Your task to perform on an android device: see creations saved in the google photos Image 0: 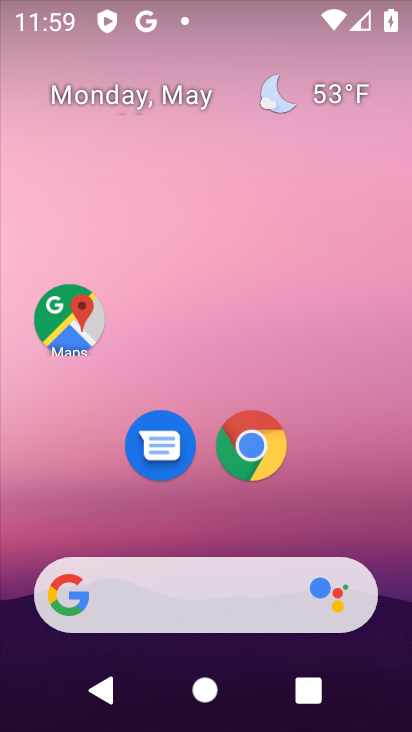
Step 0: drag from (109, 464) to (179, 97)
Your task to perform on an android device: see creations saved in the google photos Image 1: 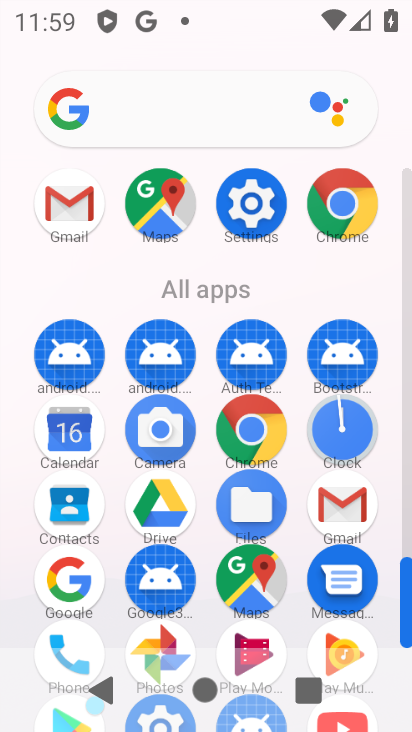
Step 1: drag from (143, 634) to (193, 394)
Your task to perform on an android device: see creations saved in the google photos Image 2: 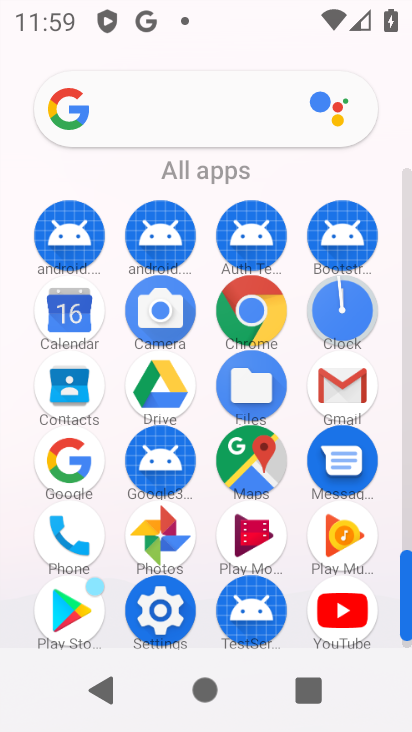
Step 2: click (176, 536)
Your task to perform on an android device: see creations saved in the google photos Image 3: 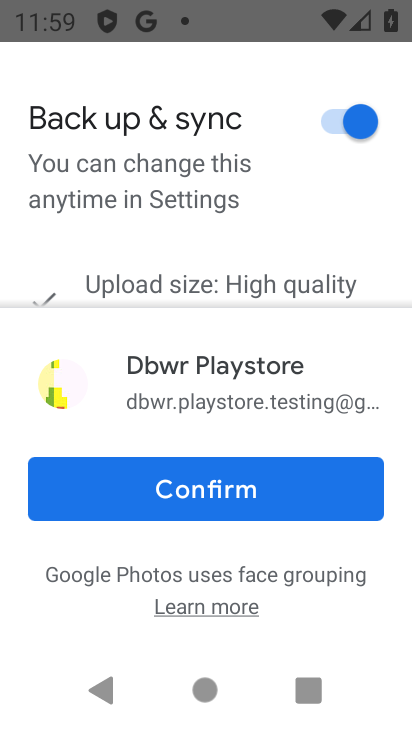
Step 3: click (186, 474)
Your task to perform on an android device: see creations saved in the google photos Image 4: 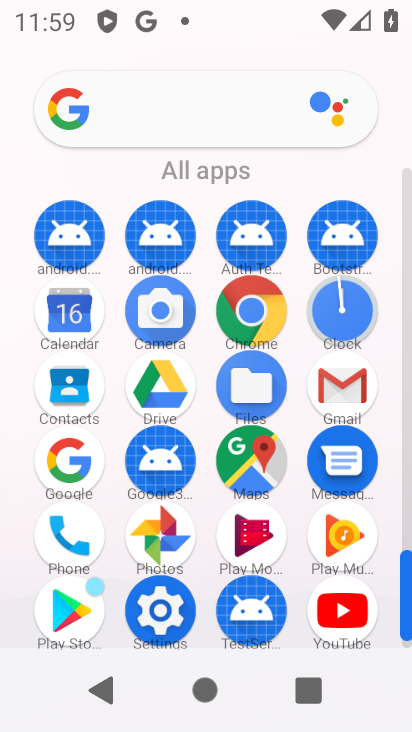
Step 4: click (158, 554)
Your task to perform on an android device: see creations saved in the google photos Image 5: 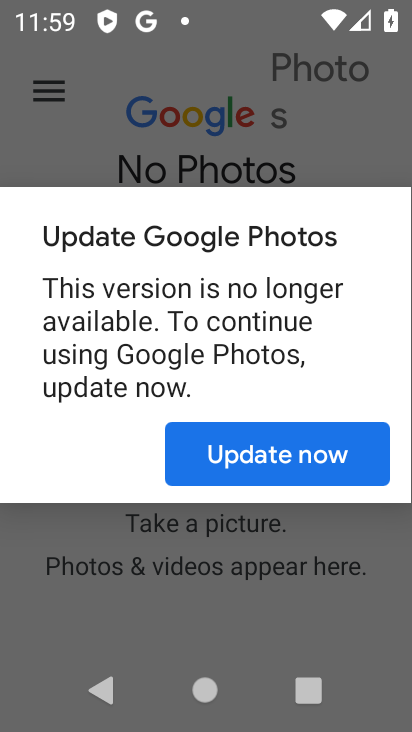
Step 5: click (282, 470)
Your task to perform on an android device: see creations saved in the google photos Image 6: 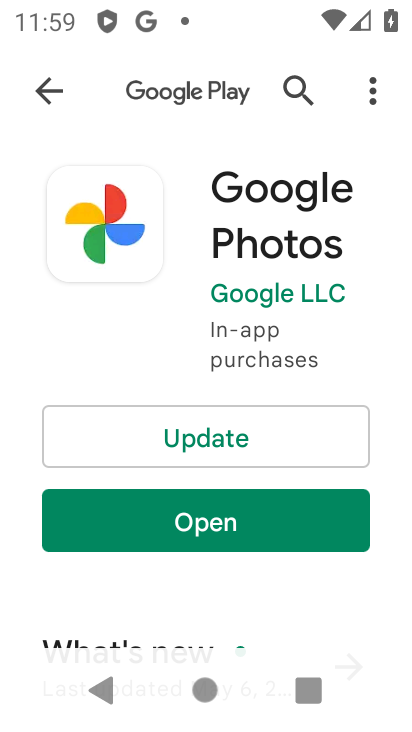
Step 6: click (218, 432)
Your task to perform on an android device: see creations saved in the google photos Image 7: 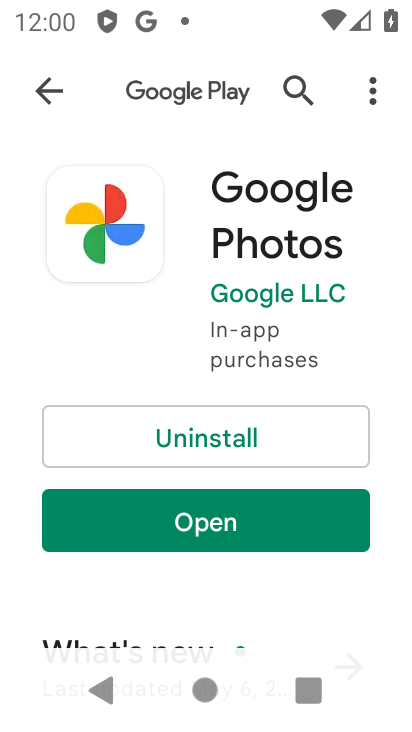
Step 7: click (100, 508)
Your task to perform on an android device: see creations saved in the google photos Image 8: 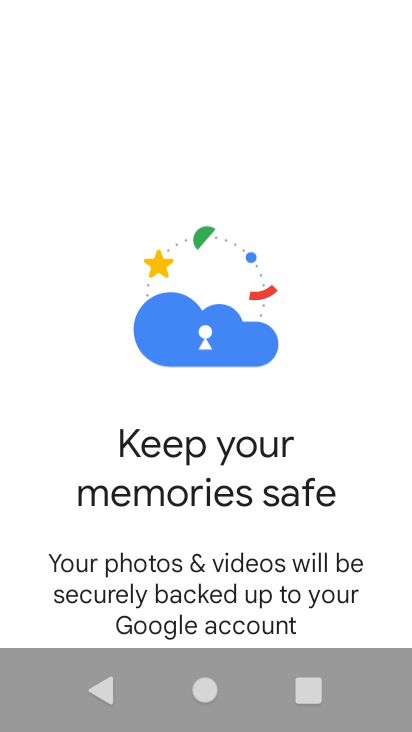
Step 8: drag from (209, 560) to (321, 202)
Your task to perform on an android device: see creations saved in the google photos Image 9: 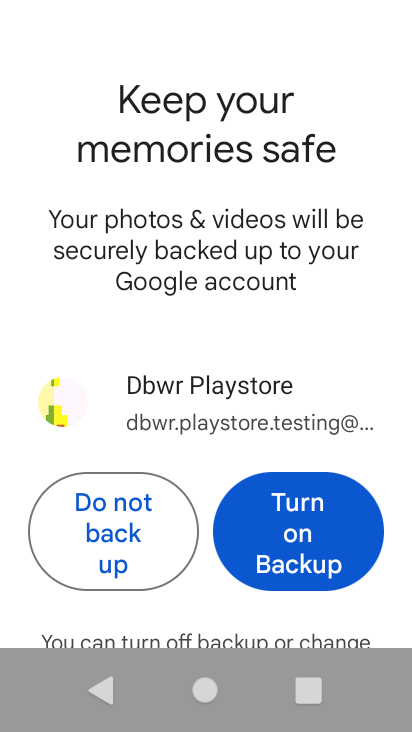
Step 9: drag from (287, 569) to (332, 424)
Your task to perform on an android device: see creations saved in the google photos Image 10: 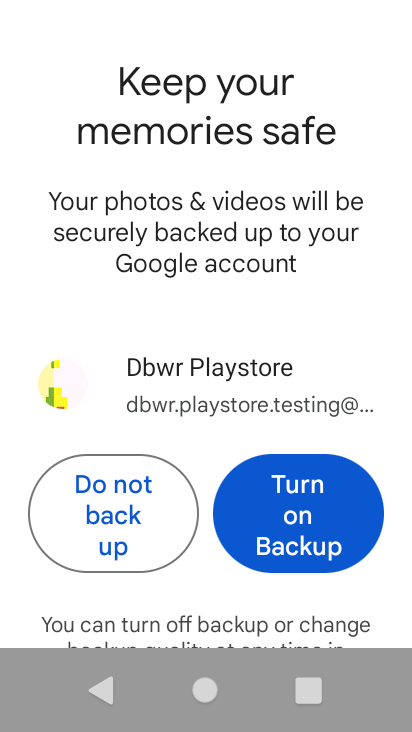
Step 10: click (326, 505)
Your task to perform on an android device: see creations saved in the google photos Image 11: 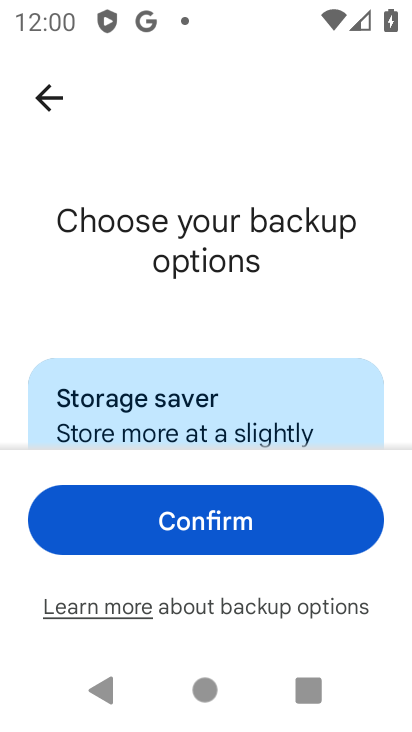
Step 11: click (309, 525)
Your task to perform on an android device: see creations saved in the google photos Image 12: 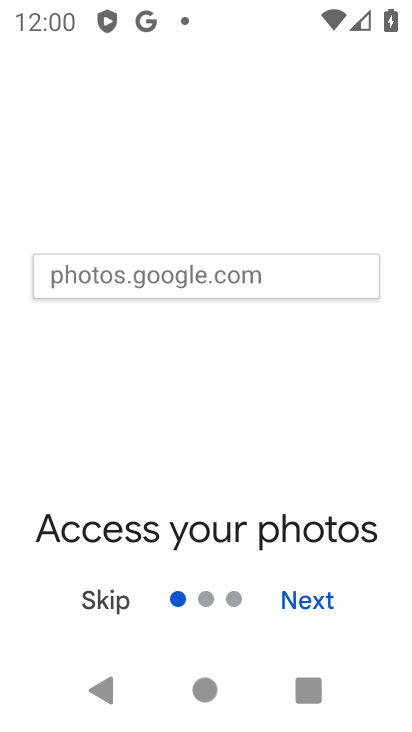
Step 12: click (317, 610)
Your task to perform on an android device: see creations saved in the google photos Image 13: 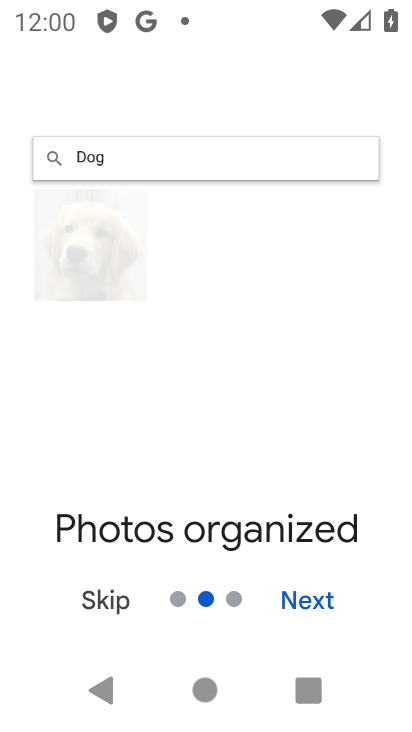
Step 13: click (316, 610)
Your task to perform on an android device: see creations saved in the google photos Image 14: 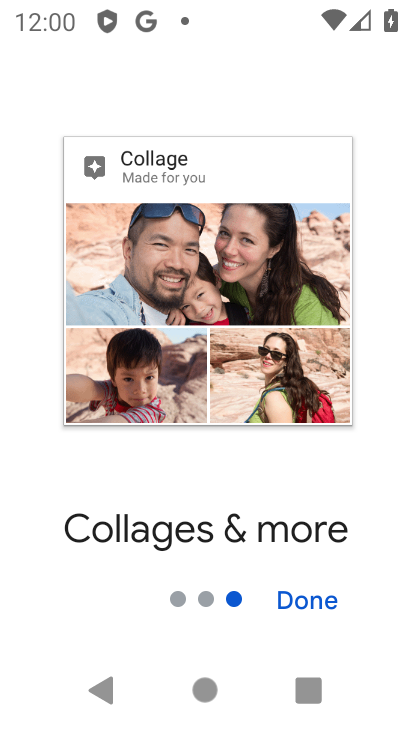
Step 14: click (304, 610)
Your task to perform on an android device: see creations saved in the google photos Image 15: 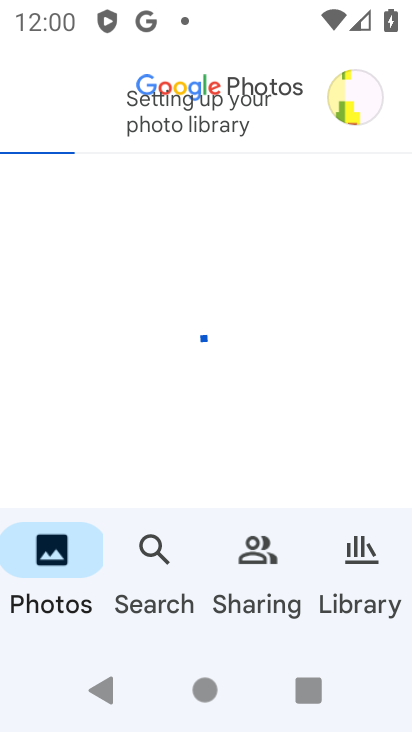
Step 15: click (163, 566)
Your task to perform on an android device: see creations saved in the google photos Image 16: 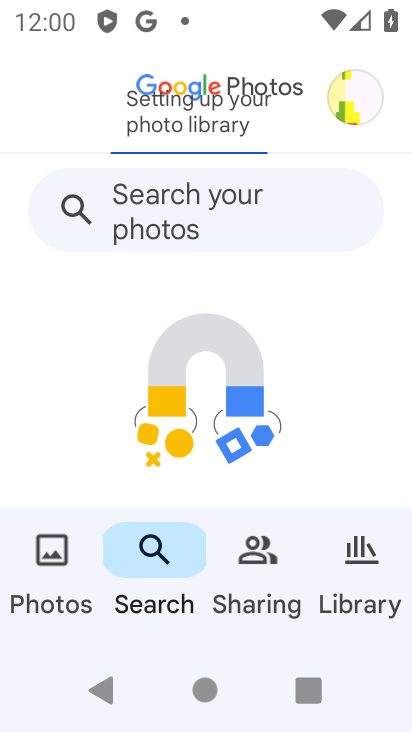
Step 16: click (226, 200)
Your task to perform on an android device: see creations saved in the google photos Image 17: 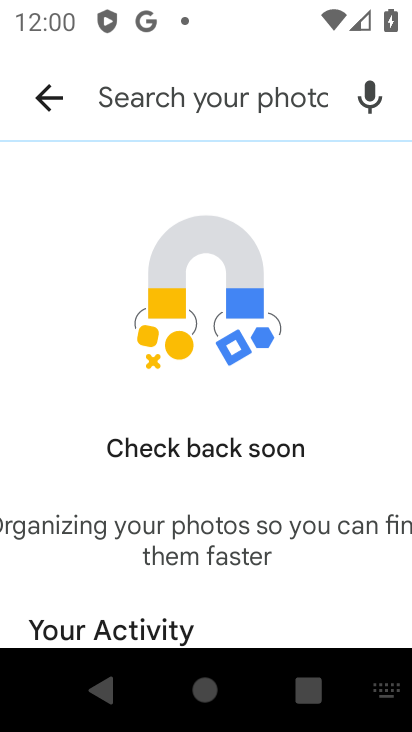
Step 17: click (35, 104)
Your task to perform on an android device: see creations saved in the google photos Image 18: 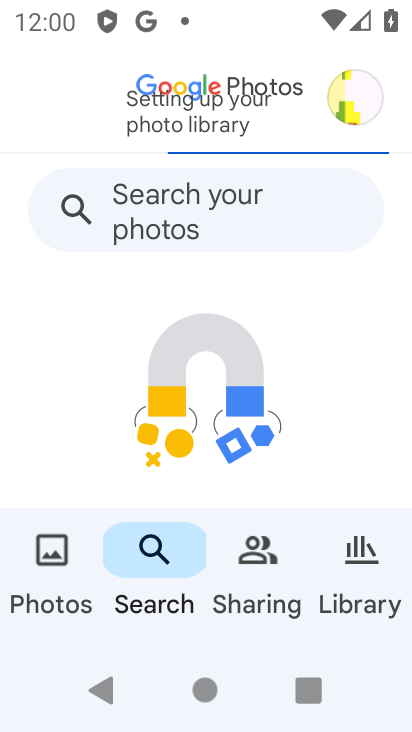
Step 18: click (271, 569)
Your task to perform on an android device: see creations saved in the google photos Image 19: 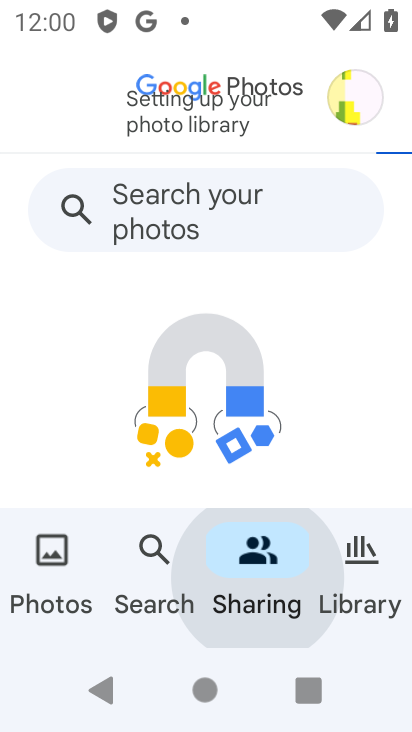
Step 19: click (389, 580)
Your task to perform on an android device: see creations saved in the google photos Image 20: 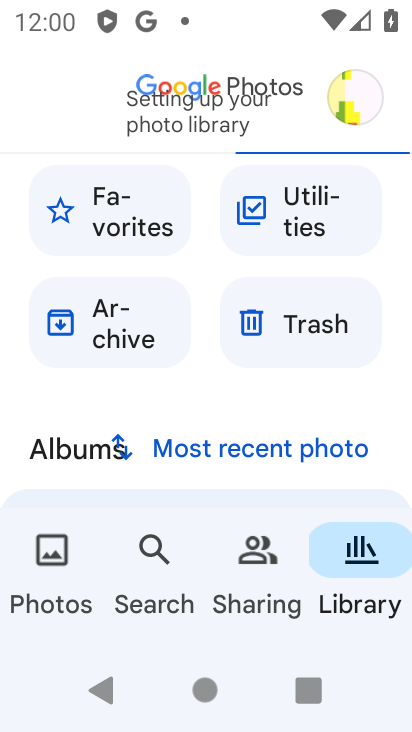
Step 20: task complete